Your task to perform on an android device: Open Chrome and go to settings Image 0: 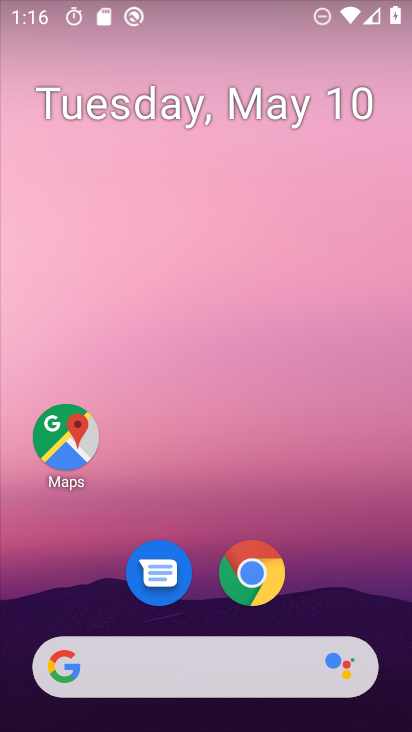
Step 0: drag from (362, 536) to (189, 6)
Your task to perform on an android device: Open Chrome and go to settings Image 1: 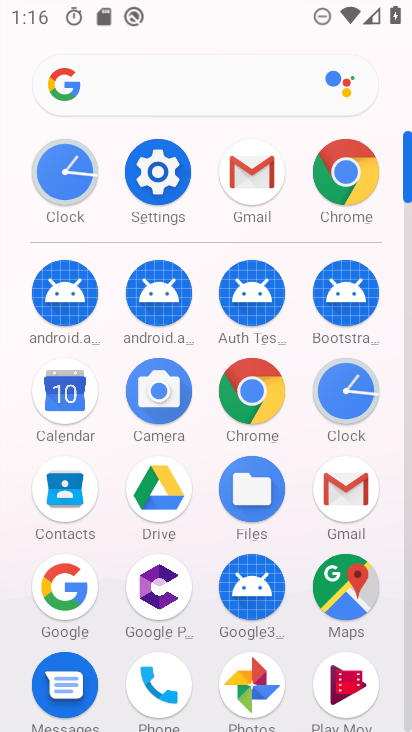
Step 1: click (152, 247)
Your task to perform on an android device: Open Chrome and go to settings Image 2: 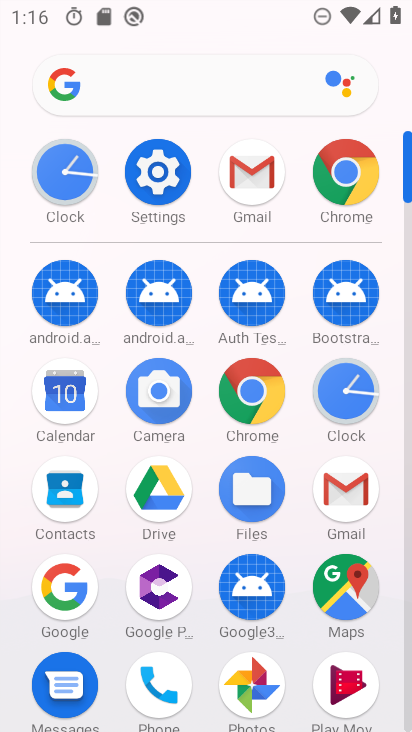
Step 2: click (165, 200)
Your task to perform on an android device: Open Chrome and go to settings Image 3: 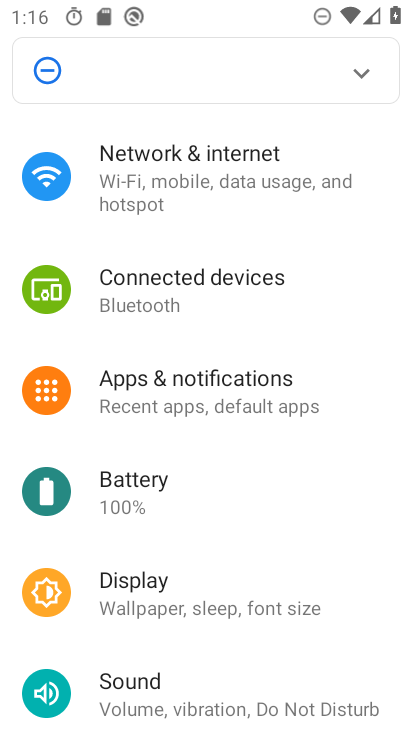
Step 3: press home button
Your task to perform on an android device: Open Chrome and go to settings Image 4: 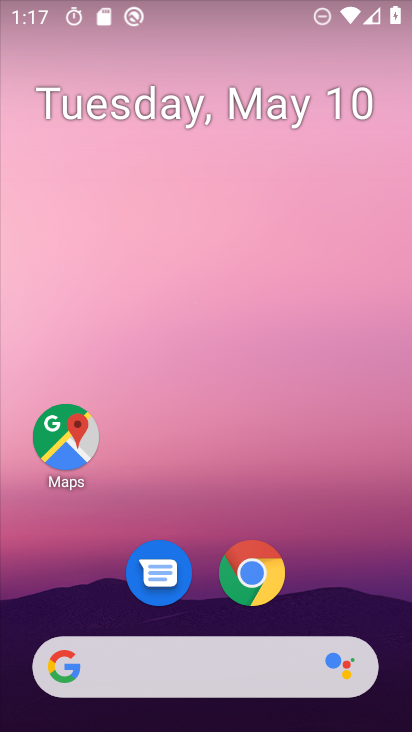
Step 4: click (247, 570)
Your task to perform on an android device: Open Chrome and go to settings Image 5: 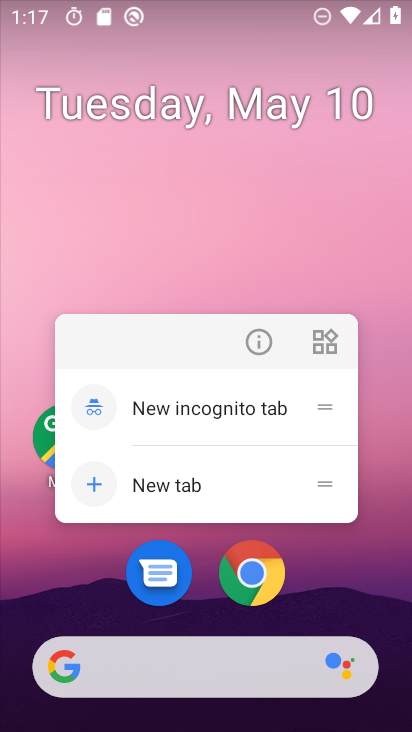
Step 5: click (247, 570)
Your task to perform on an android device: Open Chrome and go to settings Image 6: 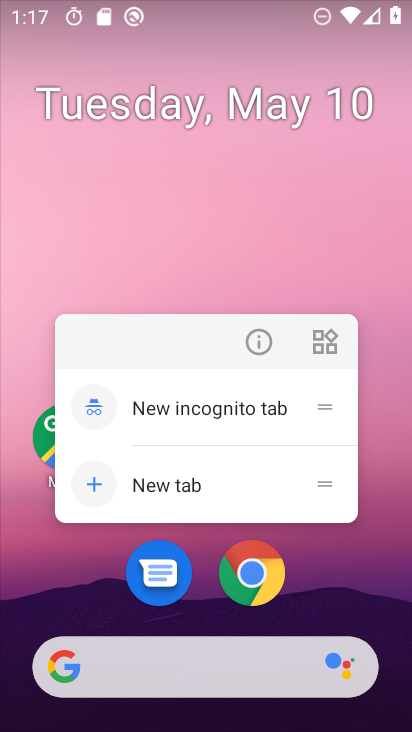
Step 6: click (255, 573)
Your task to perform on an android device: Open Chrome and go to settings Image 7: 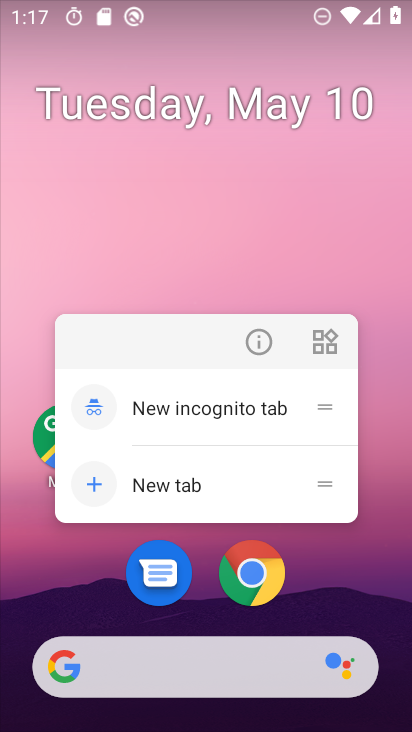
Step 7: click (255, 573)
Your task to perform on an android device: Open Chrome and go to settings Image 8: 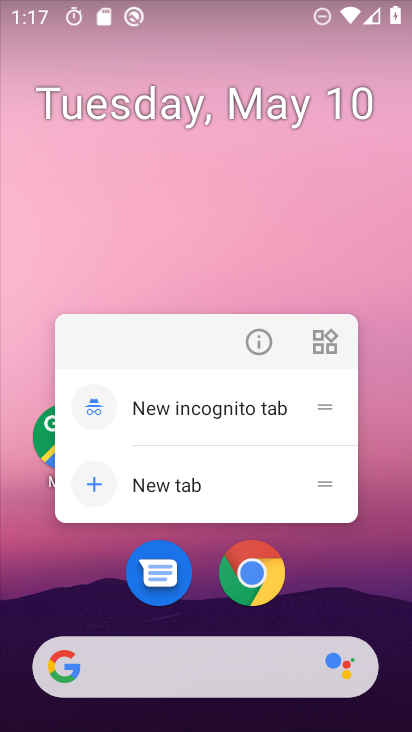
Step 8: click (255, 572)
Your task to perform on an android device: Open Chrome and go to settings Image 9: 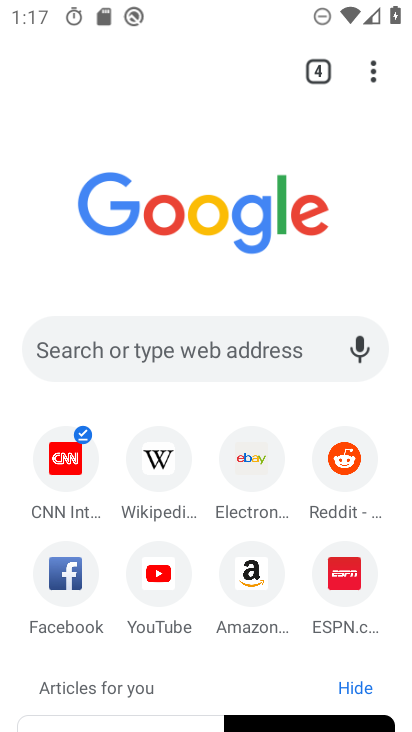
Step 9: task complete